Your task to perform on an android device: install app "Booking.com: Hotels and more" Image 0: 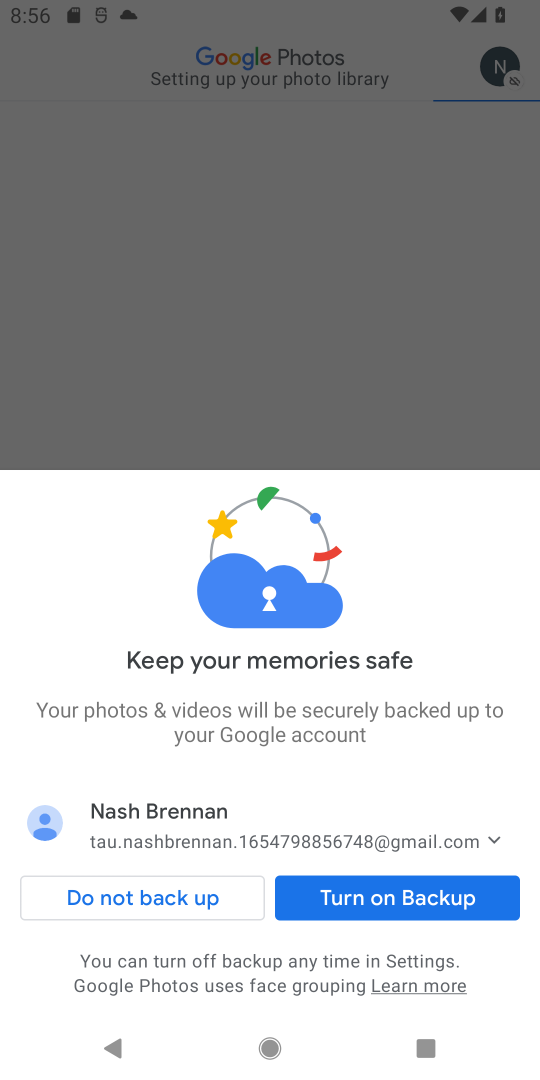
Step 0: press home button
Your task to perform on an android device: install app "Booking.com: Hotels and more" Image 1: 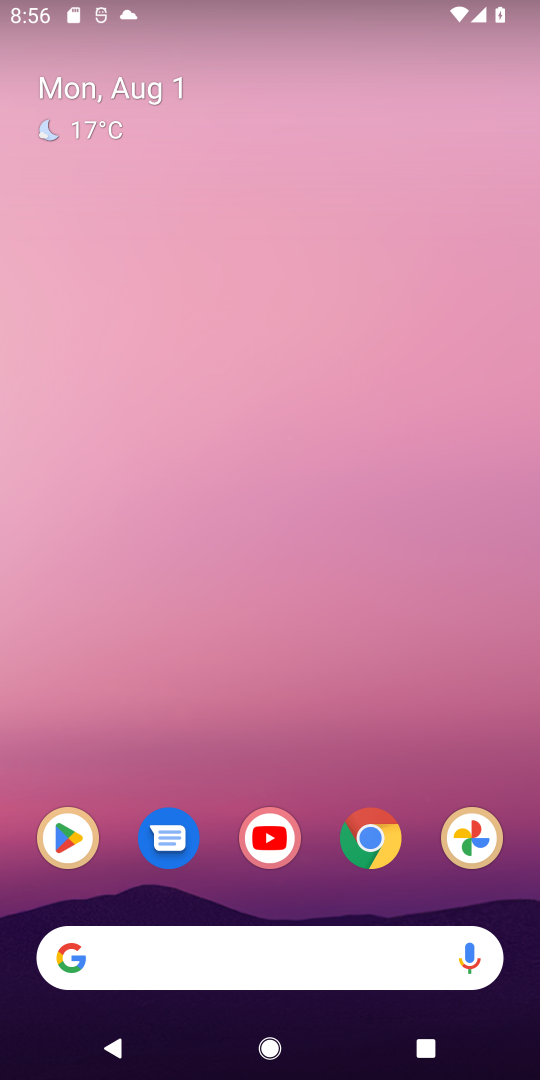
Step 1: click (81, 843)
Your task to perform on an android device: install app "Booking.com: Hotels and more" Image 2: 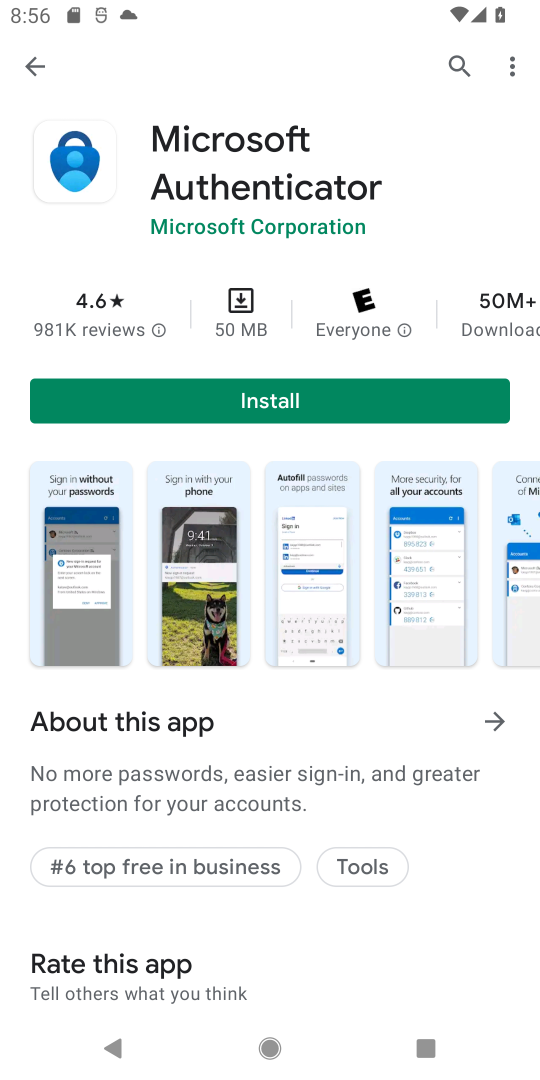
Step 2: click (460, 66)
Your task to perform on an android device: install app "Booking.com: Hotels and more" Image 3: 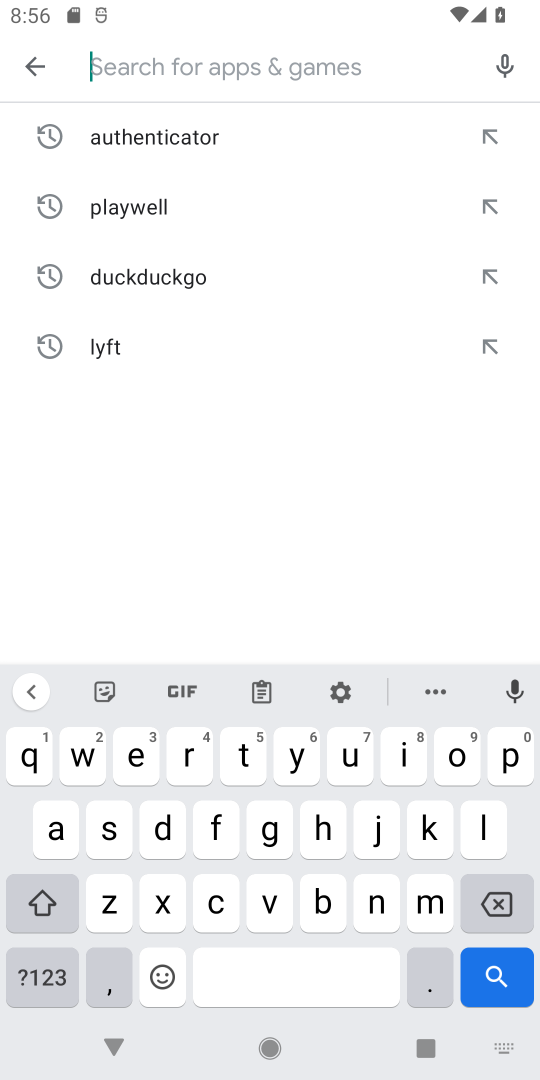
Step 3: click (319, 917)
Your task to perform on an android device: install app "Booking.com: Hotels and more" Image 4: 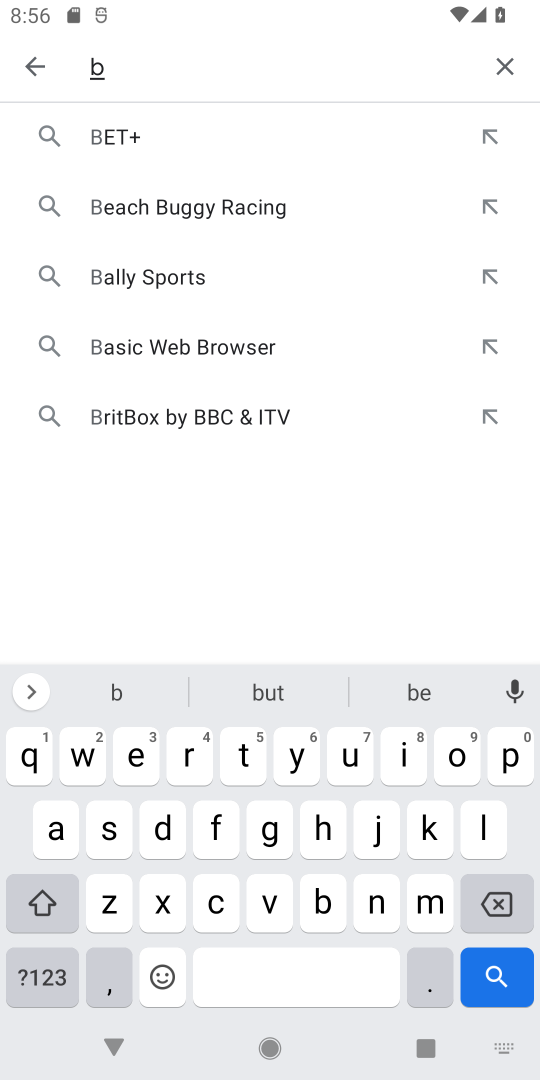
Step 4: click (456, 759)
Your task to perform on an android device: install app "Booking.com: Hotels and more" Image 5: 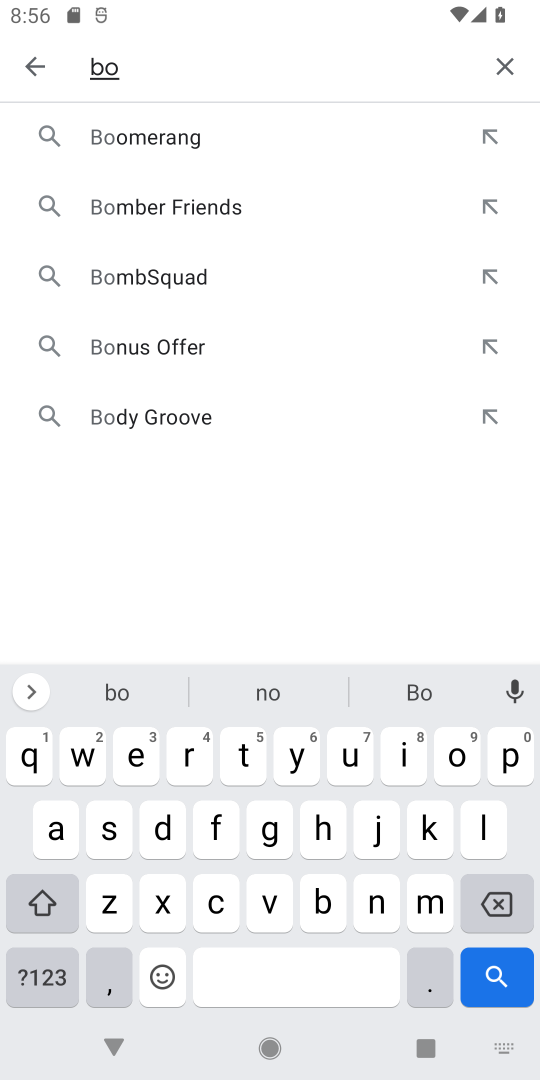
Step 5: click (432, 831)
Your task to perform on an android device: install app "Booking.com: Hotels and more" Image 6: 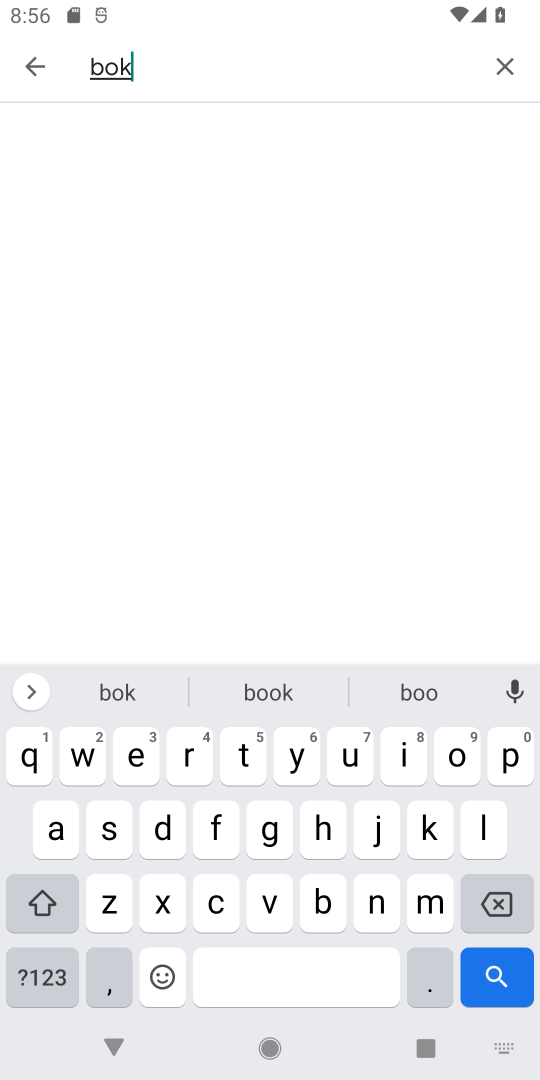
Step 6: click (497, 898)
Your task to perform on an android device: install app "Booking.com: Hotels and more" Image 7: 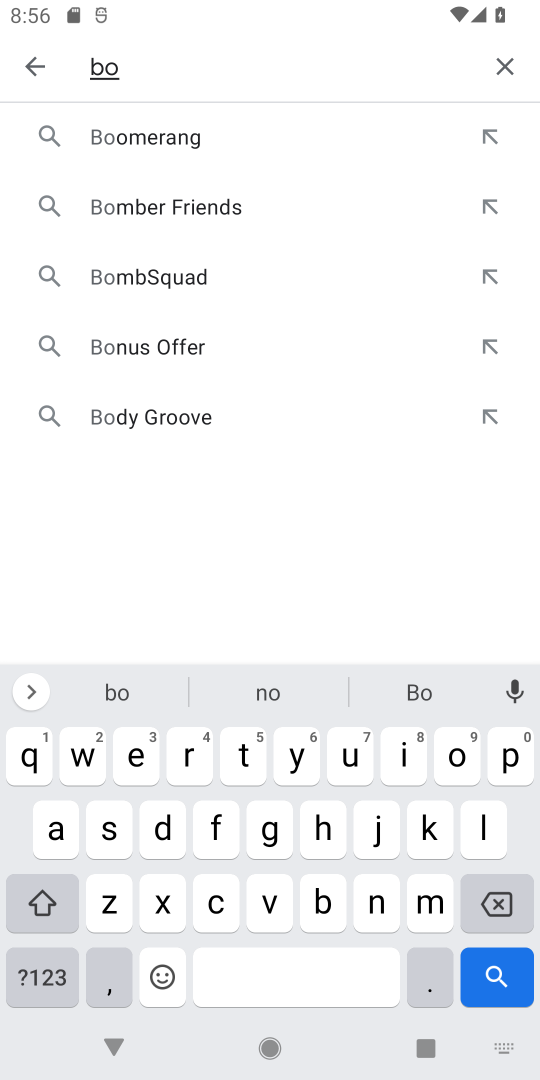
Step 7: click (456, 756)
Your task to perform on an android device: install app "Booking.com: Hotels and more" Image 8: 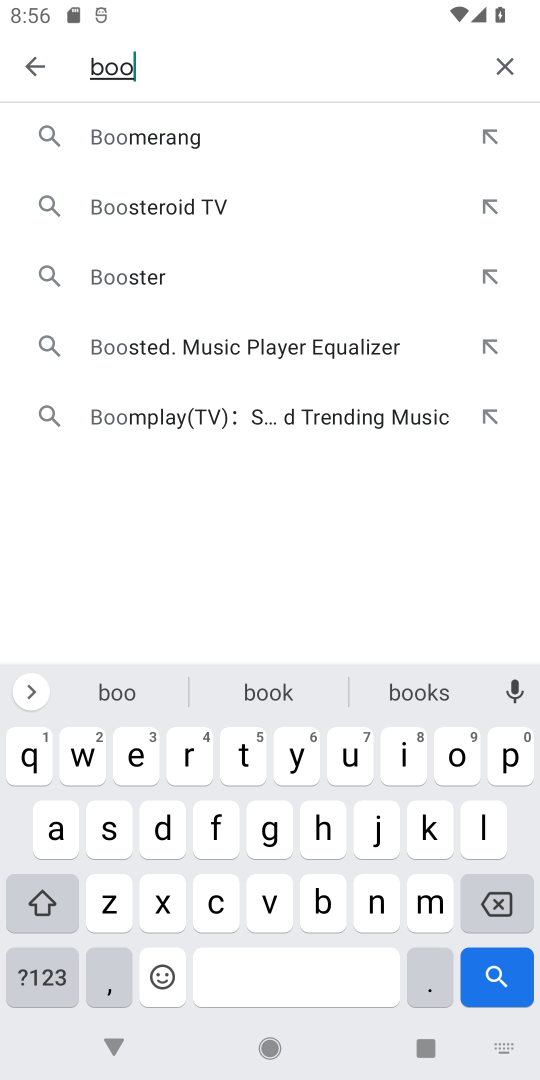
Step 8: click (424, 835)
Your task to perform on an android device: install app "Booking.com: Hotels and more" Image 9: 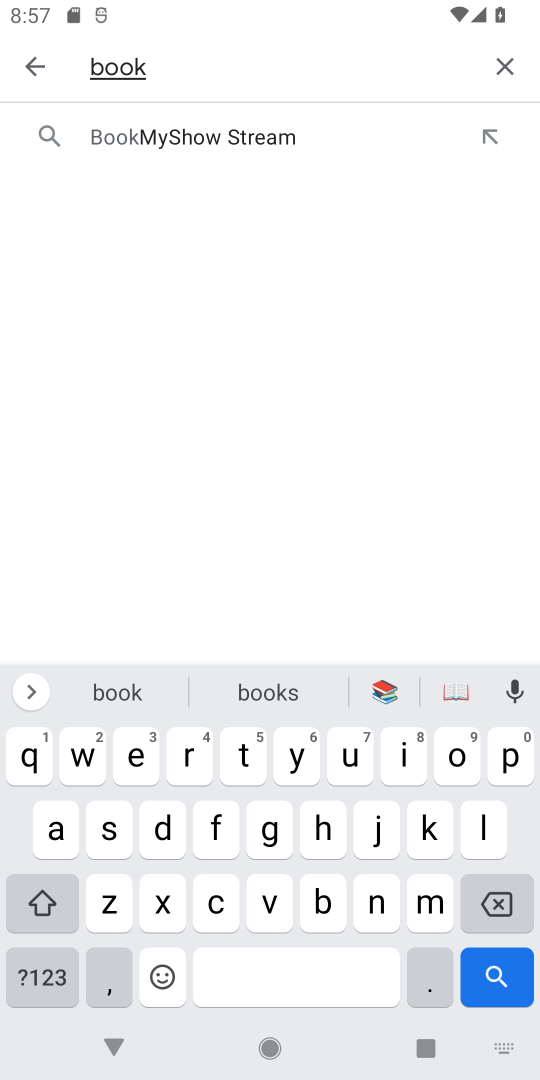
Step 9: click (406, 755)
Your task to perform on an android device: install app "Booking.com: Hotels and more" Image 10: 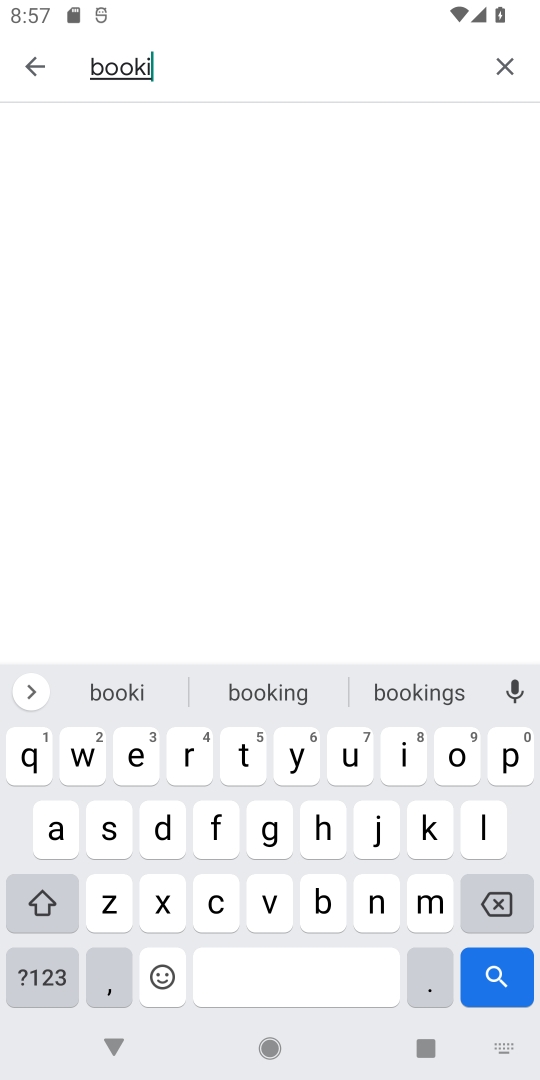
Step 10: click (274, 693)
Your task to perform on an android device: install app "Booking.com: Hotels and more" Image 11: 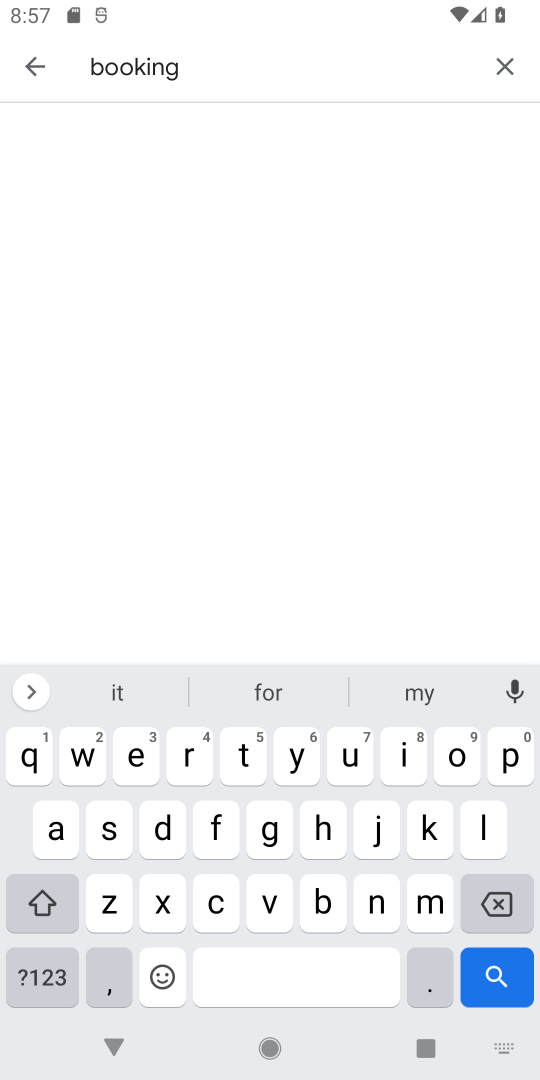
Step 11: click (486, 965)
Your task to perform on an android device: install app "Booking.com: Hotels and more" Image 12: 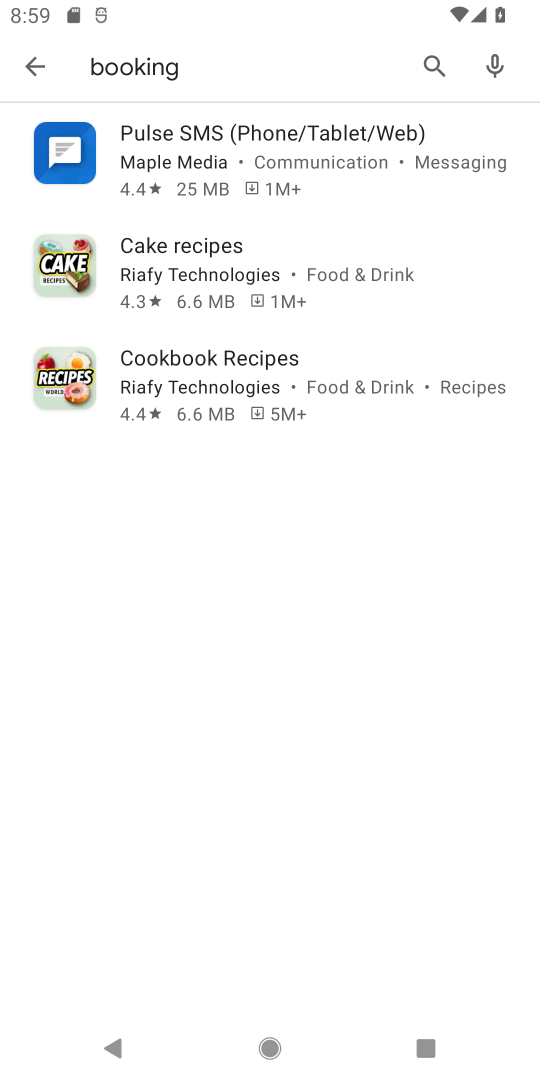
Step 12: task complete